Your task to perform on an android device: stop showing notifications on the lock screen Image 0: 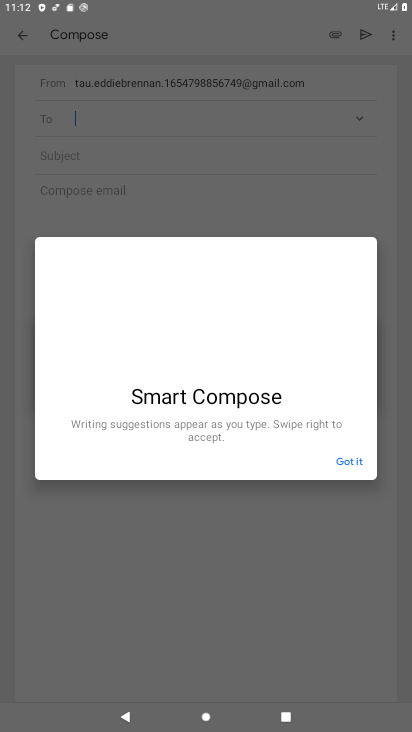
Step 0: press home button
Your task to perform on an android device: stop showing notifications on the lock screen Image 1: 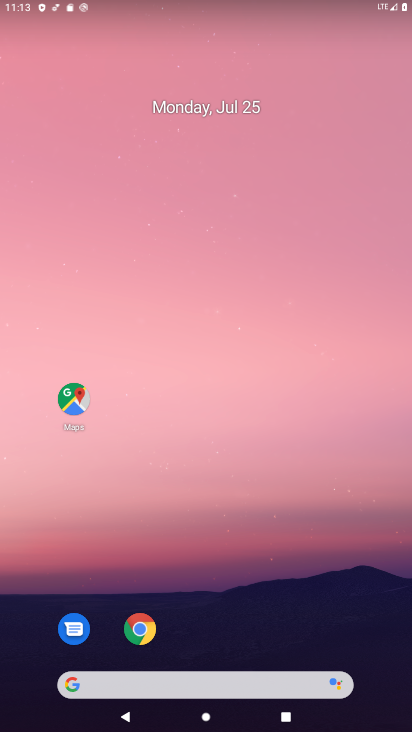
Step 1: drag from (228, 639) to (222, 206)
Your task to perform on an android device: stop showing notifications on the lock screen Image 2: 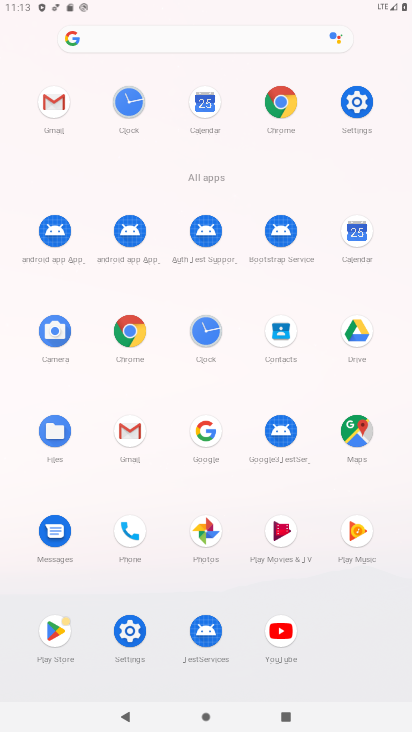
Step 2: click (350, 101)
Your task to perform on an android device: stop showing notifications on the lock screen Image 3: 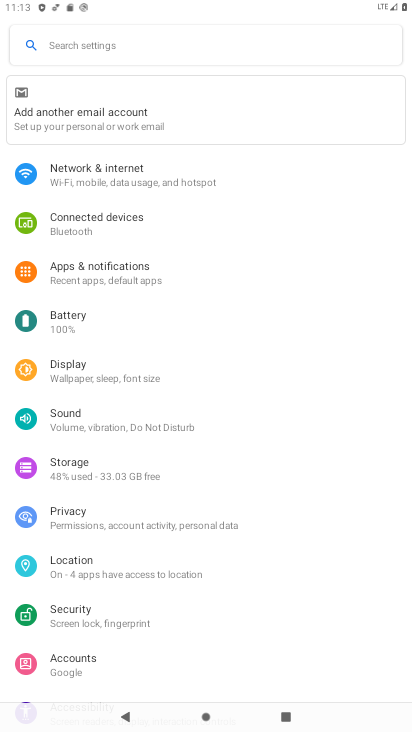
Step 3: click (138, 293)
Your task to perform on an android device: stop showing notifications on the lock screen Image 4: 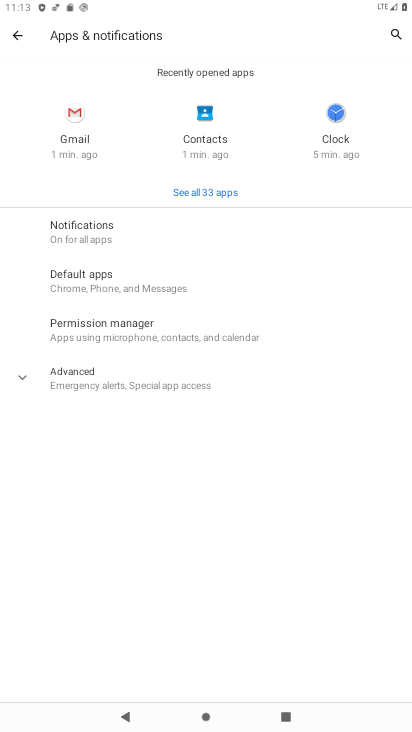
Step 4: click (113, 242)
Your task to perform on an android device: stop showing notifications on the lock screen Image 5: 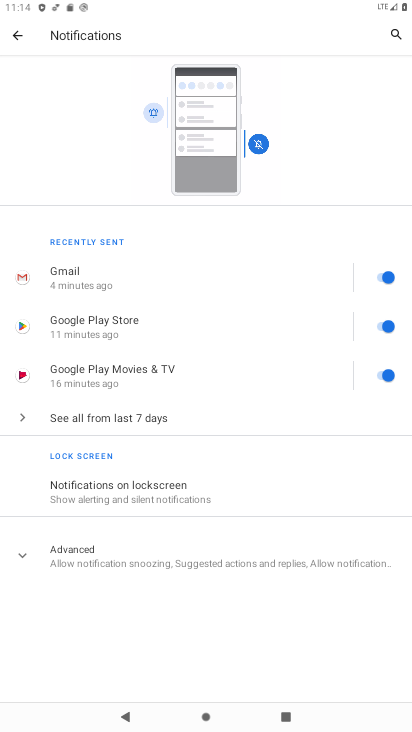
Step 5: click (158, 495)
Your task to perform on an android device: stop showing notifications on the lock screen Image 6: 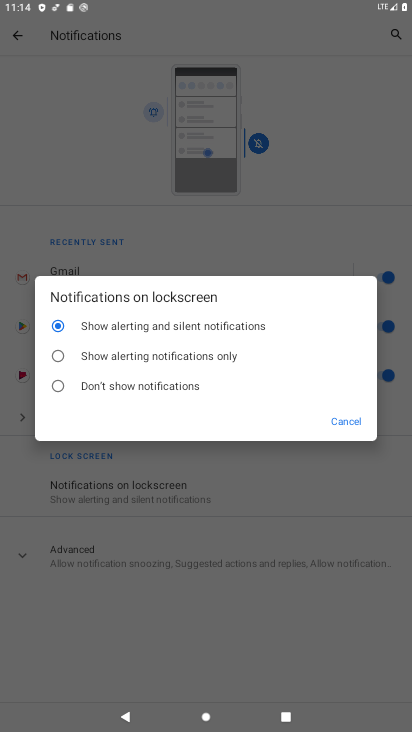
Step 6: click (111, 388)
Your task to perform on an android device: stop showing notifications on the lock screen Image 7: 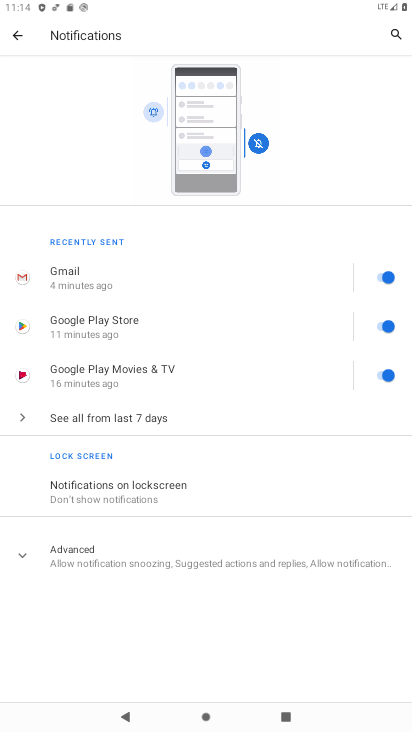
Step 7: click (129, 494)
Your task to perform on an android device: stop showing notifications on the lock screen Image 8: 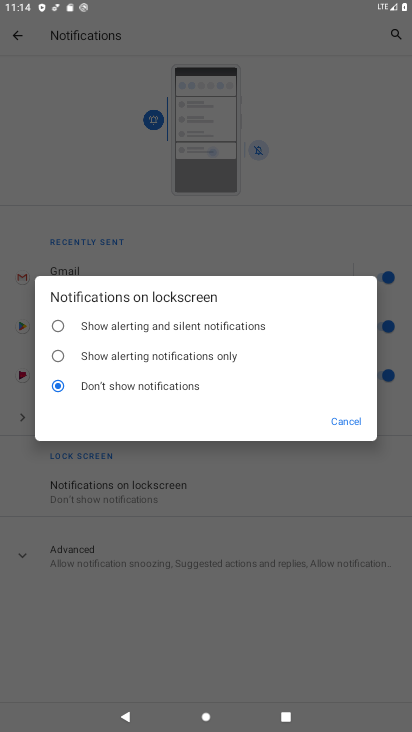
Step 8: task complete